Your task to perform on an android device: Go to CNN.com Image 0: 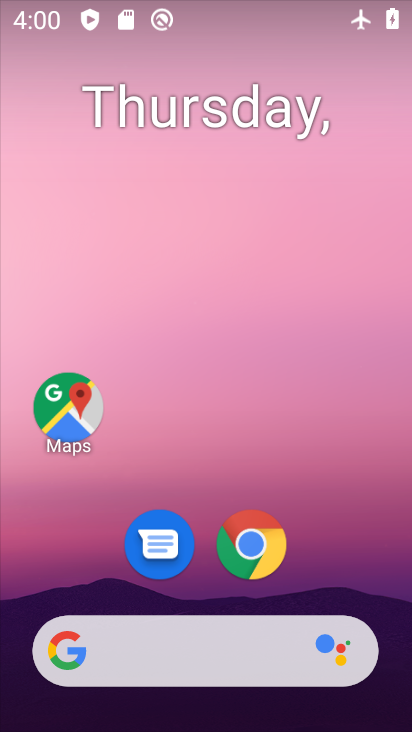
Step 0: click (238, 557)
Your task to perform on an android device: Go to CNN.com Image 1: 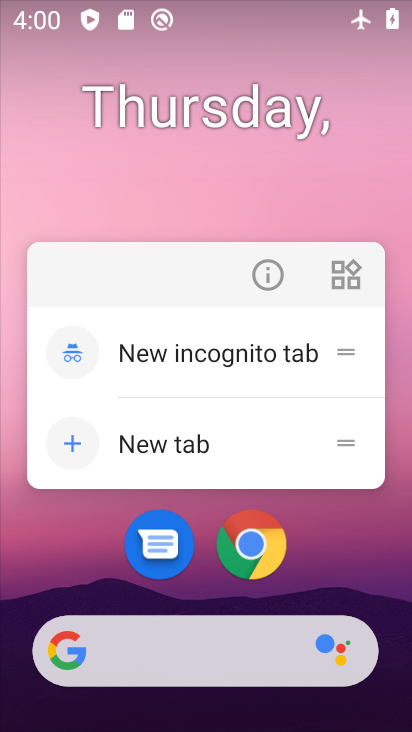
Step 1: click (238, 566)
Your task to perform on an android device: Go to CNN.com Image 2: 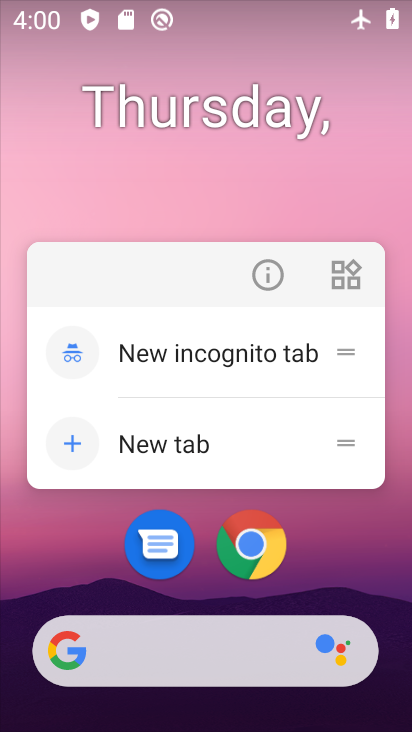
Step 2: click (243, 570)
Your task to perform on an android device: Go to CNN.com Image 3: 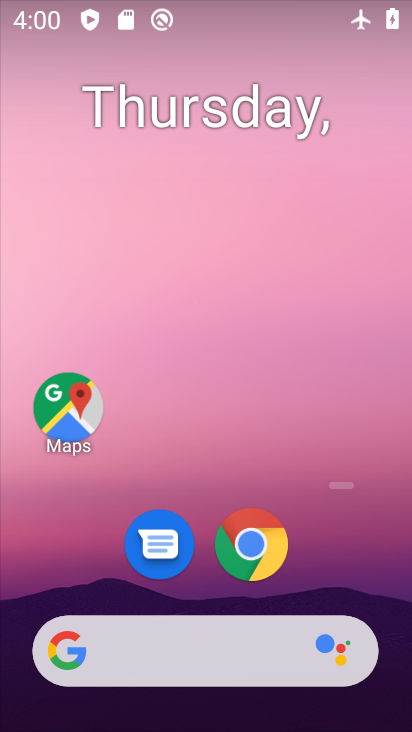
Step 3: click (243, 570)
Your task to perform on an android device: Go to CNN.com Image 4: 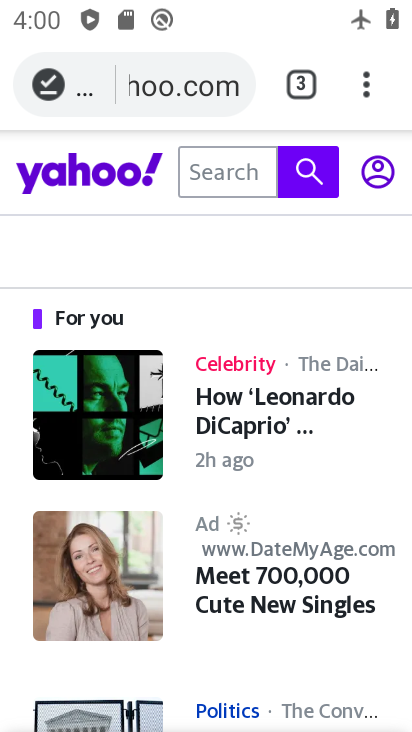
Step 4: click (192, 78)
Your task to perform on an android device: Go to CNN.com Image 5: 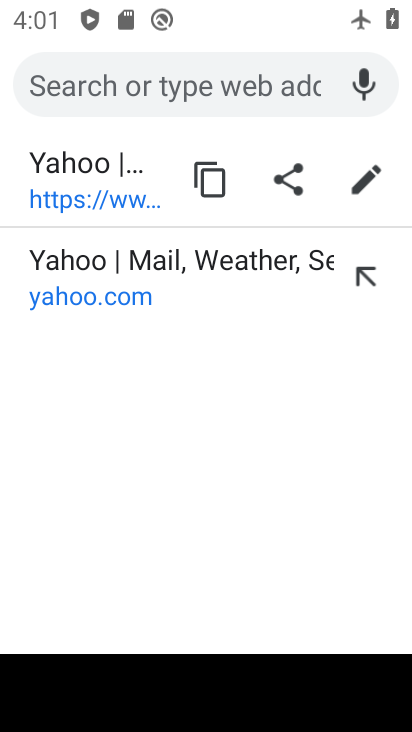
Step 5: type "CNN.com"
Your task to perform on an android device: Go to CNN.com Image 6: 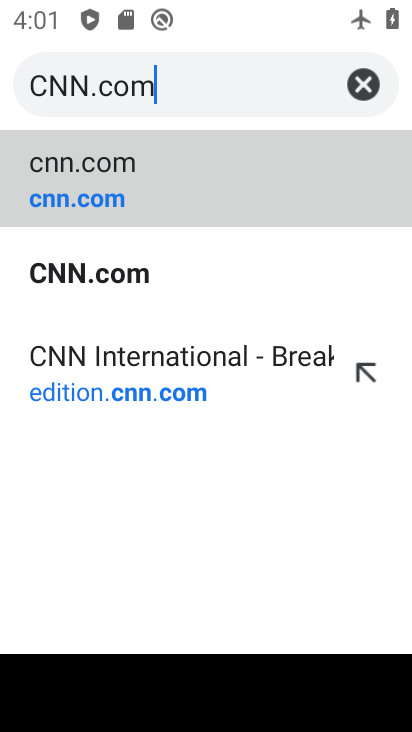
Step 6: click (284, 193)
Your task to perform on an android device: Go to CNN.com Image 7: 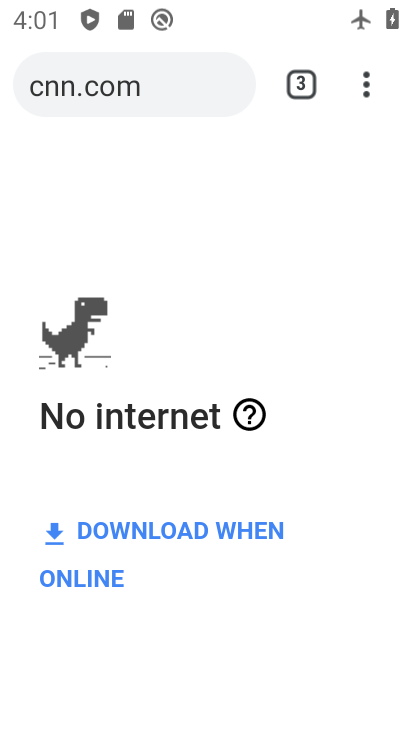
Step 7: task complete